Your task to perform on an android device: Open CNN.com Image 0: 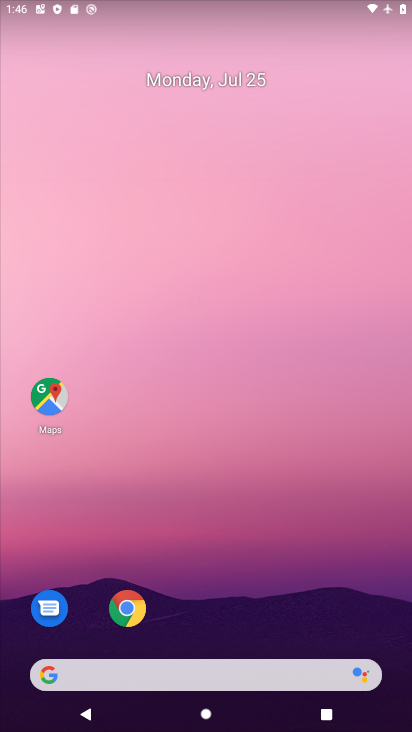
Step 0: press home button
Your task to perform on an android device: Open CNN.com Image 1: 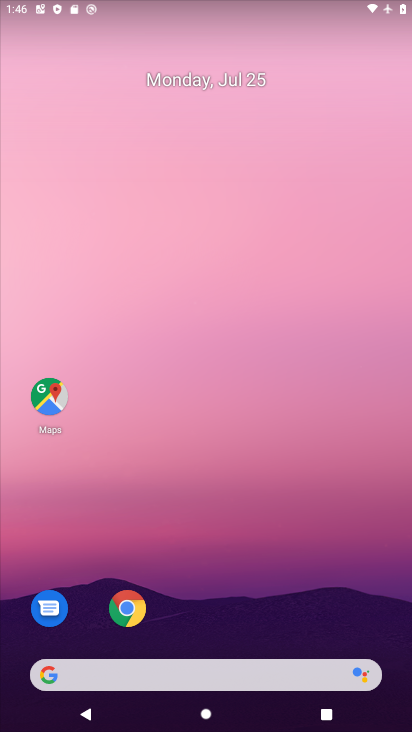
Step 1: drag from (256, 370) to (218, 131)
Your task to perform on an android device: Open CNN.com Image 2: 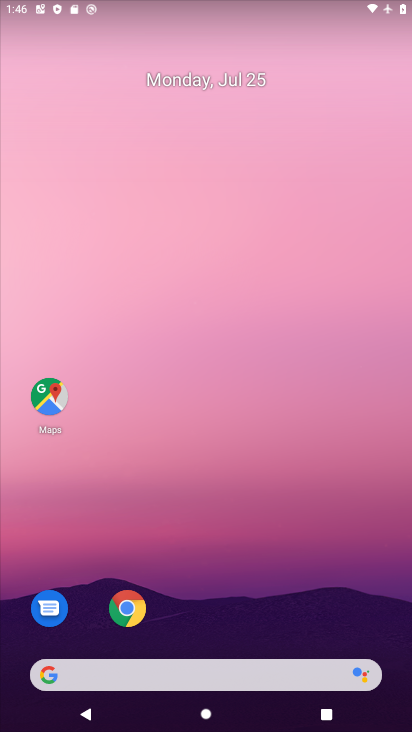
Step 2: click (128, 608)
Your task to perform on an android device: Open CNN.com Image 3: 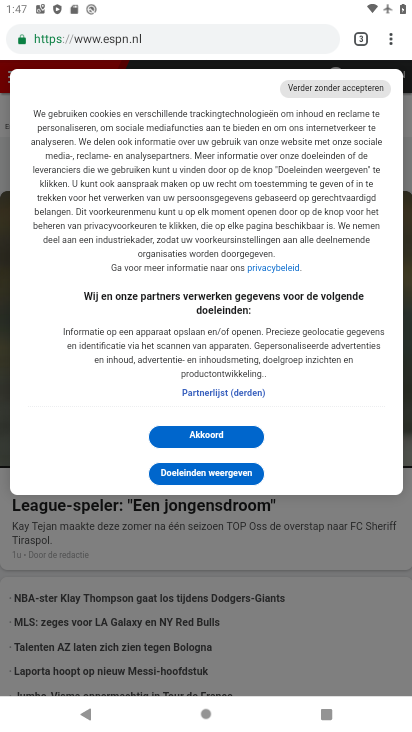
Step 3: click (146, 41)
Your task to perform on an android device: Open CNN.com Image 4: 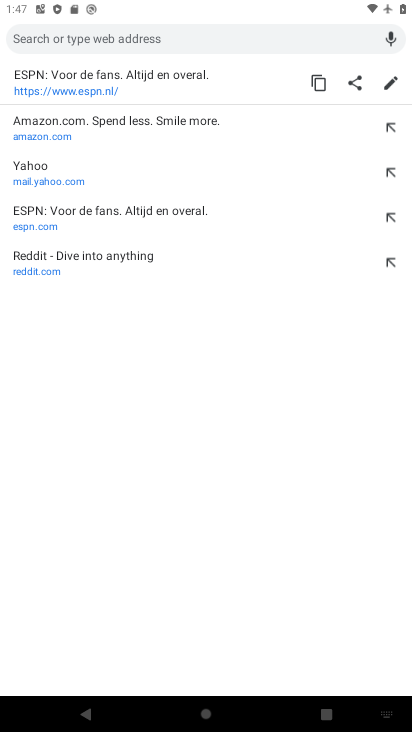
Step 4: type "cnn"
Your task to perform on an android device: Open CNN.com Image 5: 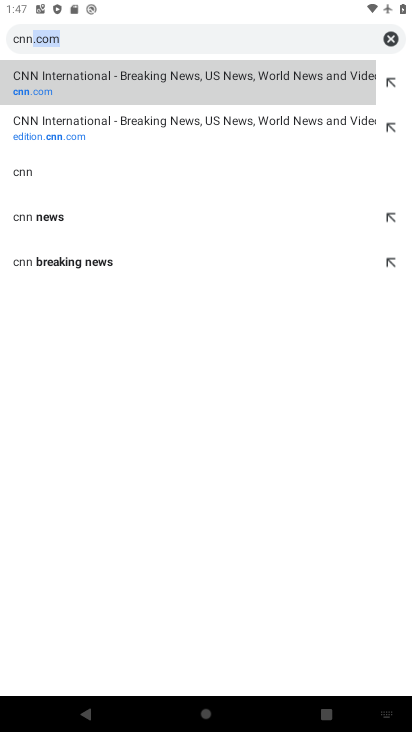
Step 5: click (83, 73)
Your task to perform on an android device: Open CNN.com Image 6: 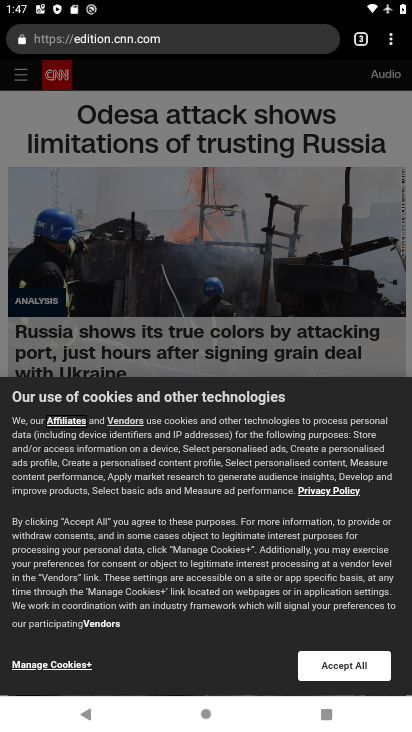
Step 6: task complete